Your task to perform on an android device: What's the weather today? Image 0: 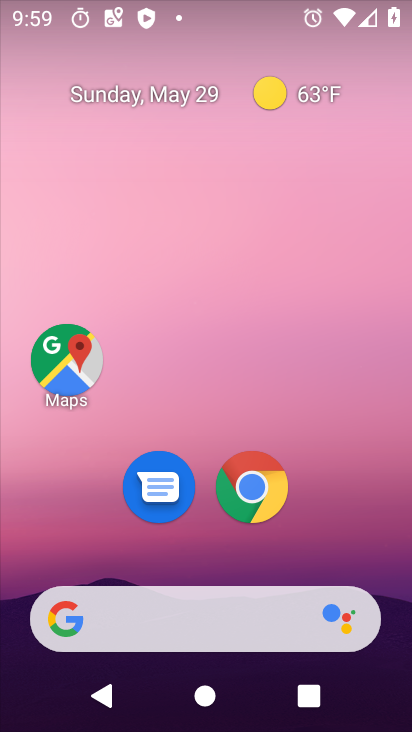
Step 0: drag from (188, 623) to (268, 67)
Your task to perform on an android device: What's the weather today? Image 1: 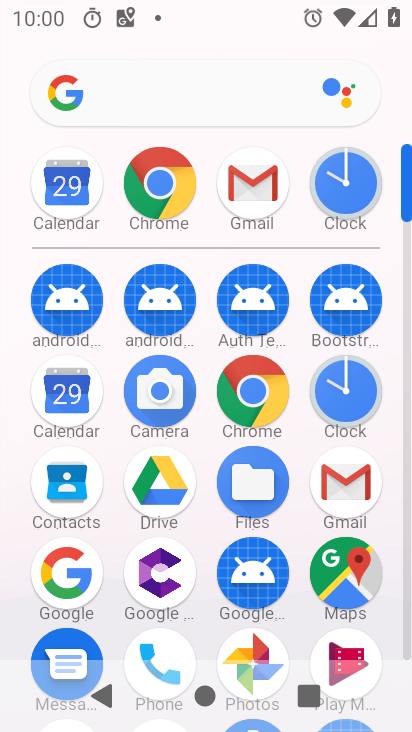
Step 1: click (64, 408)
Your task to perform on an android device: What's the weather today? Image 2: 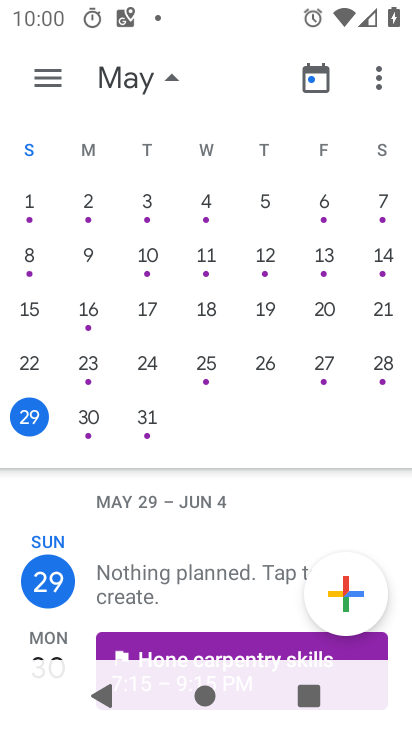
Step 2: task complete